Your task to perform on an android device: change the clock display to digital Image 0: 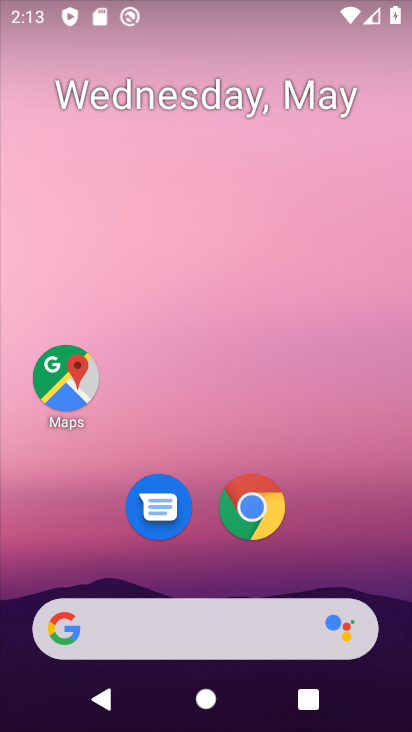
Step 0: drag from (310, 519) to (405, 165)
Your task to perform on an android device: change the clock display to digital Image 1: 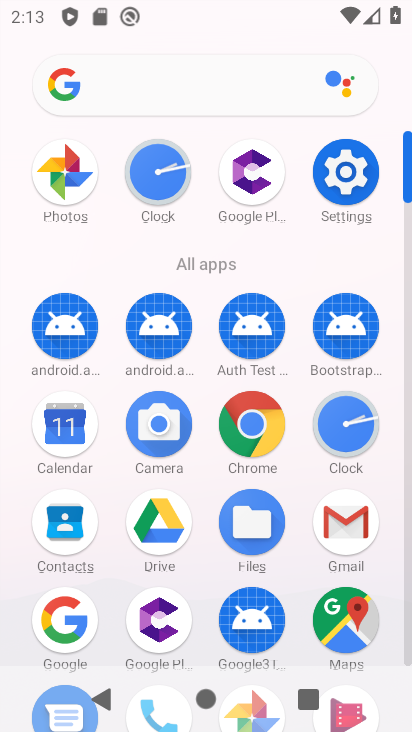
Step 1: click (344, 434)
Your task to perform on an android device: change the clock display to digital Image 2: 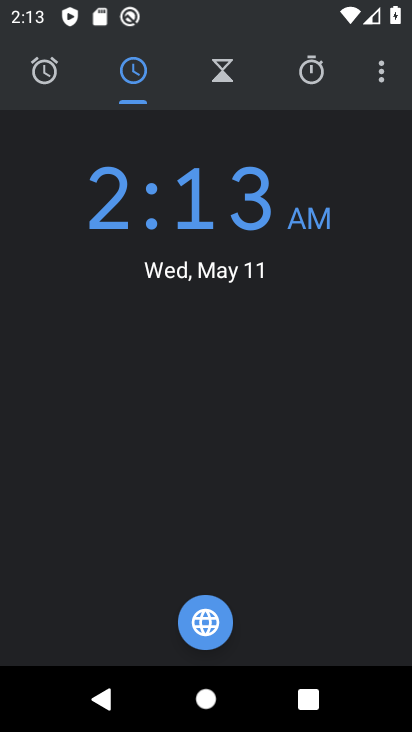
Step 2: click (385, 71)
Your task to perform on an android device: change the clock display to digital Image 3: 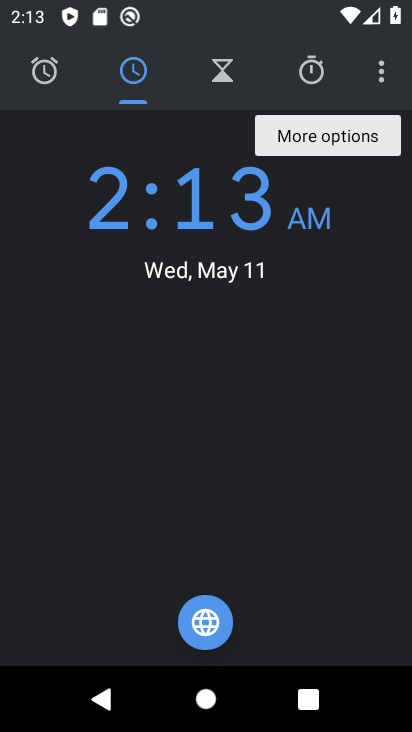
Step 3: click (383, 79)
Your task to perform on an android device: change the clock display to digital Image 4: 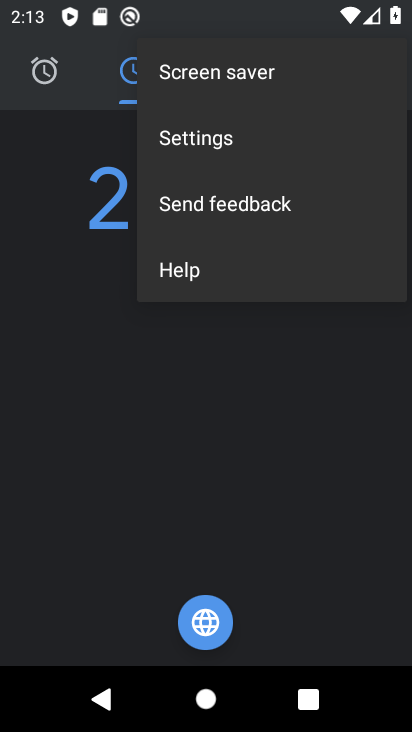
Step 4: click (222, 126)
Your task to perform on an android device: change the clock display to digital Image 5: 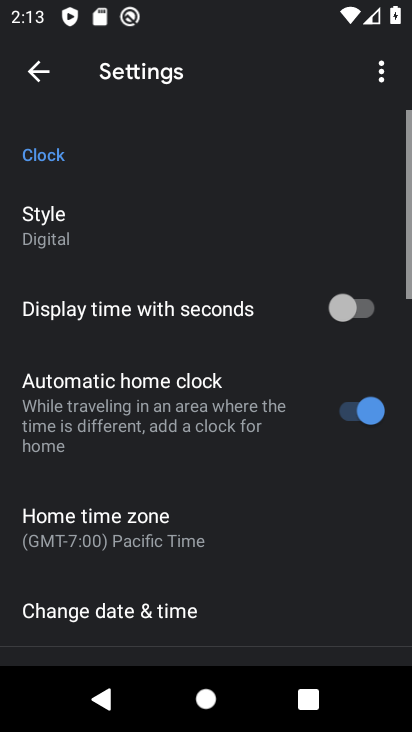
Step 5: click (76, 232)
Your task to perform on an android device: change the clock display to digital Image 6: 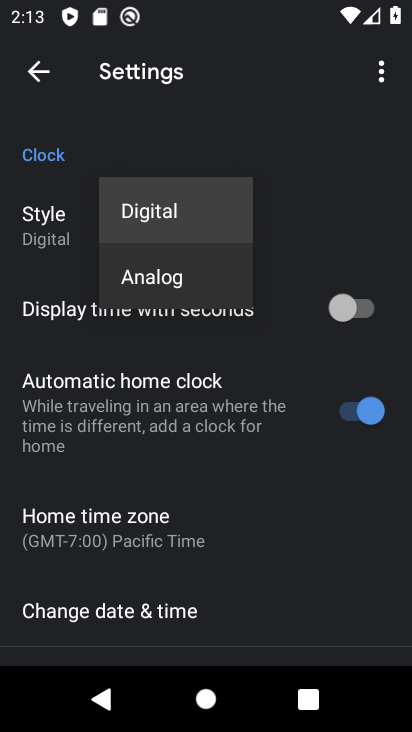
Step 6: task complete